Your task to perform on an android device: Go to internet settings Image 0: 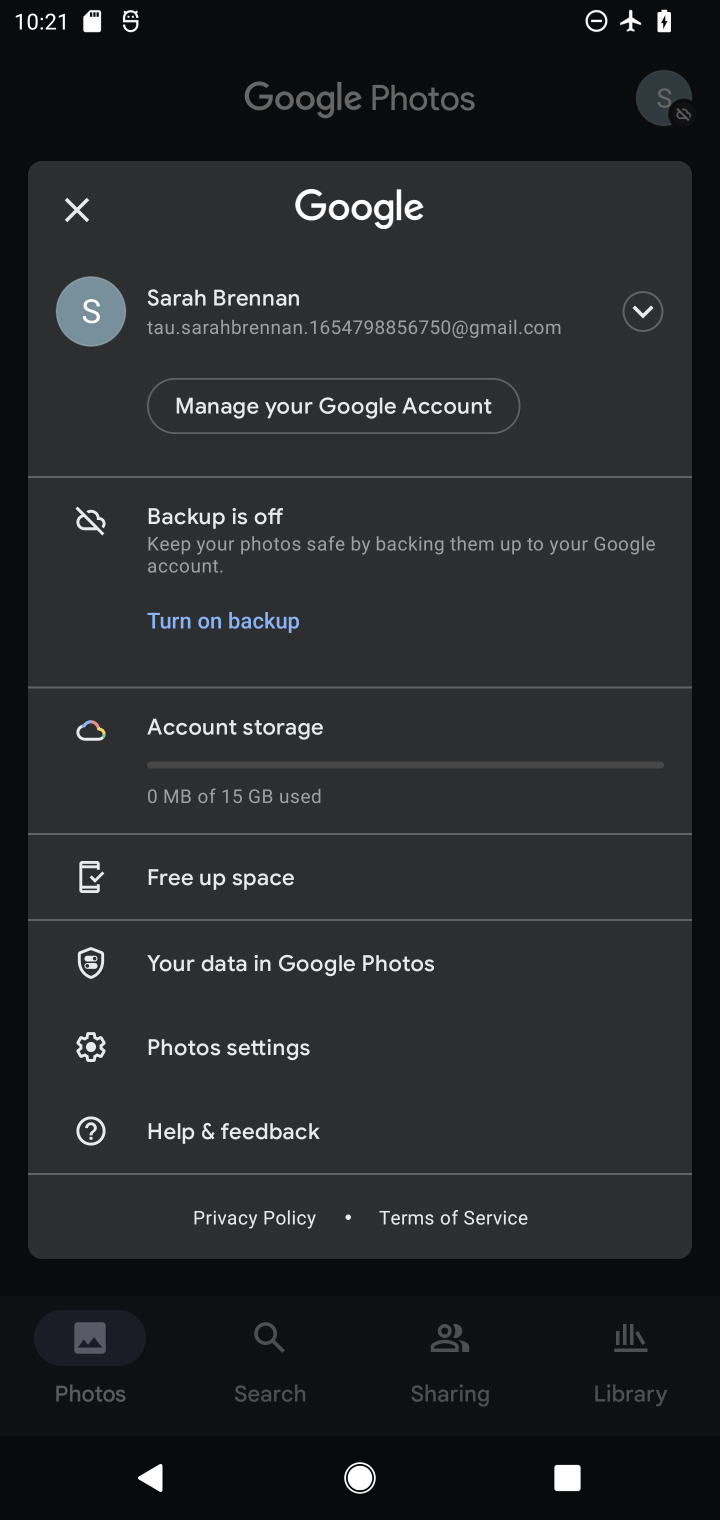
Step 0: press home button
Your task to perform on an android device: Go to internet settings Image 1: 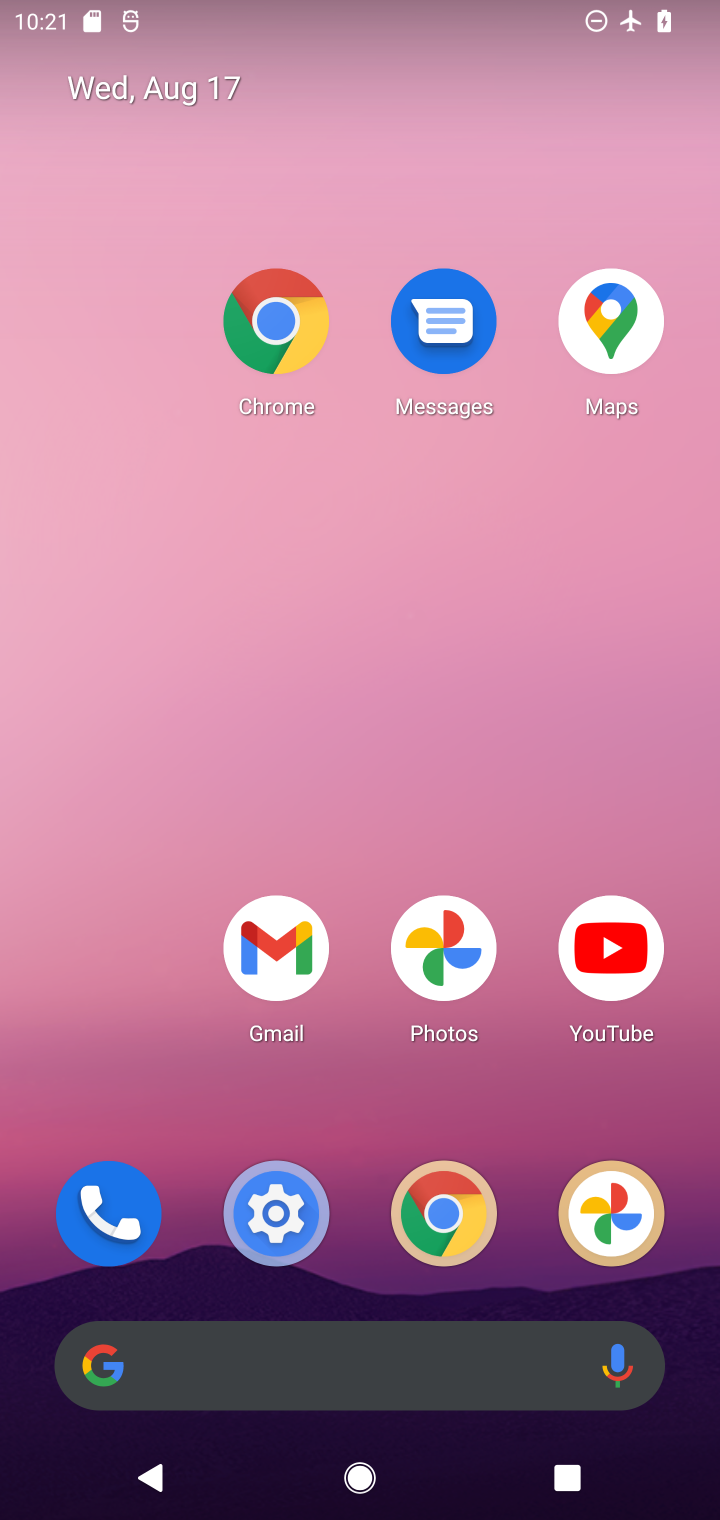
Step 1: click (293, 1224)
Your task to perform on an android device: Go to internet settings Image 2: 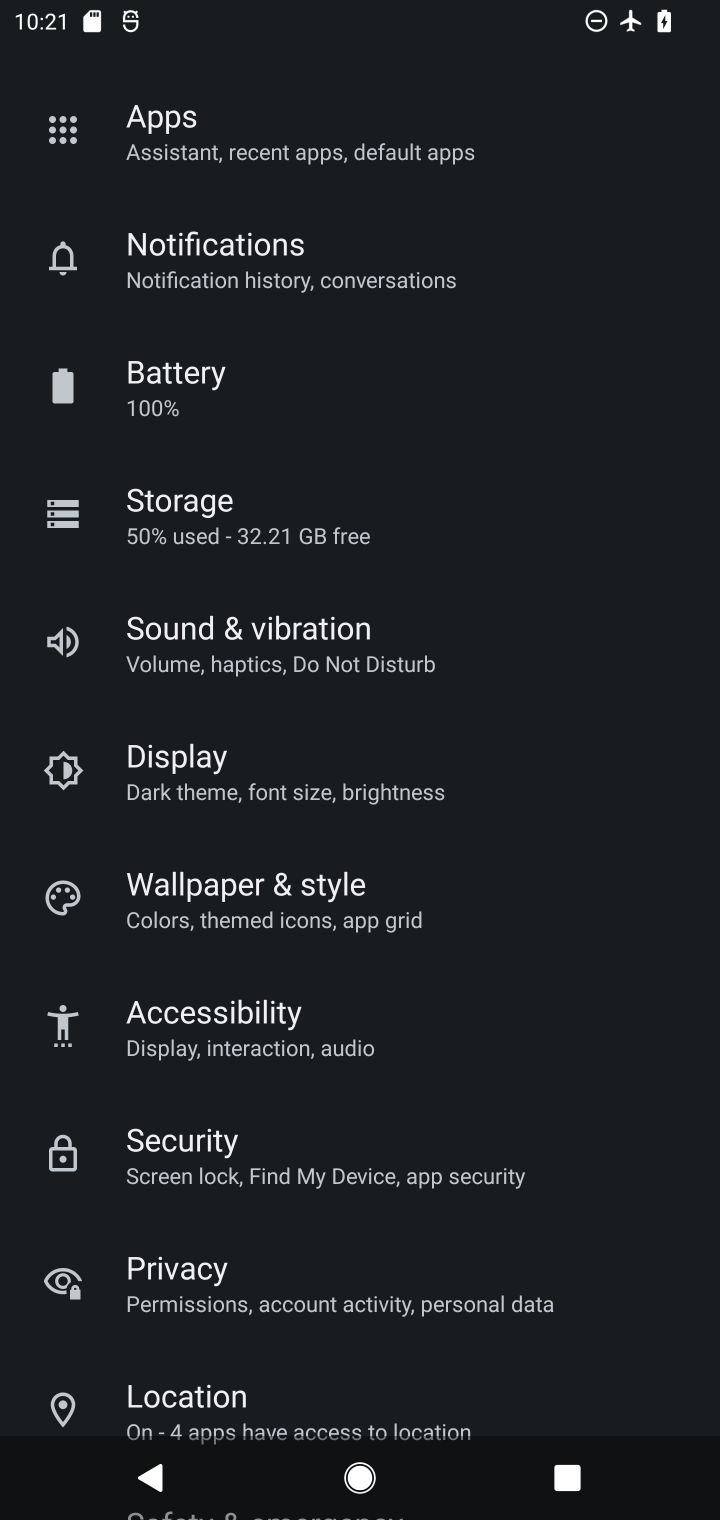
Step 2: drag from (300, 686) to (94, 1455)
Your task to perform on an android device: Go to internet settings Image 3: 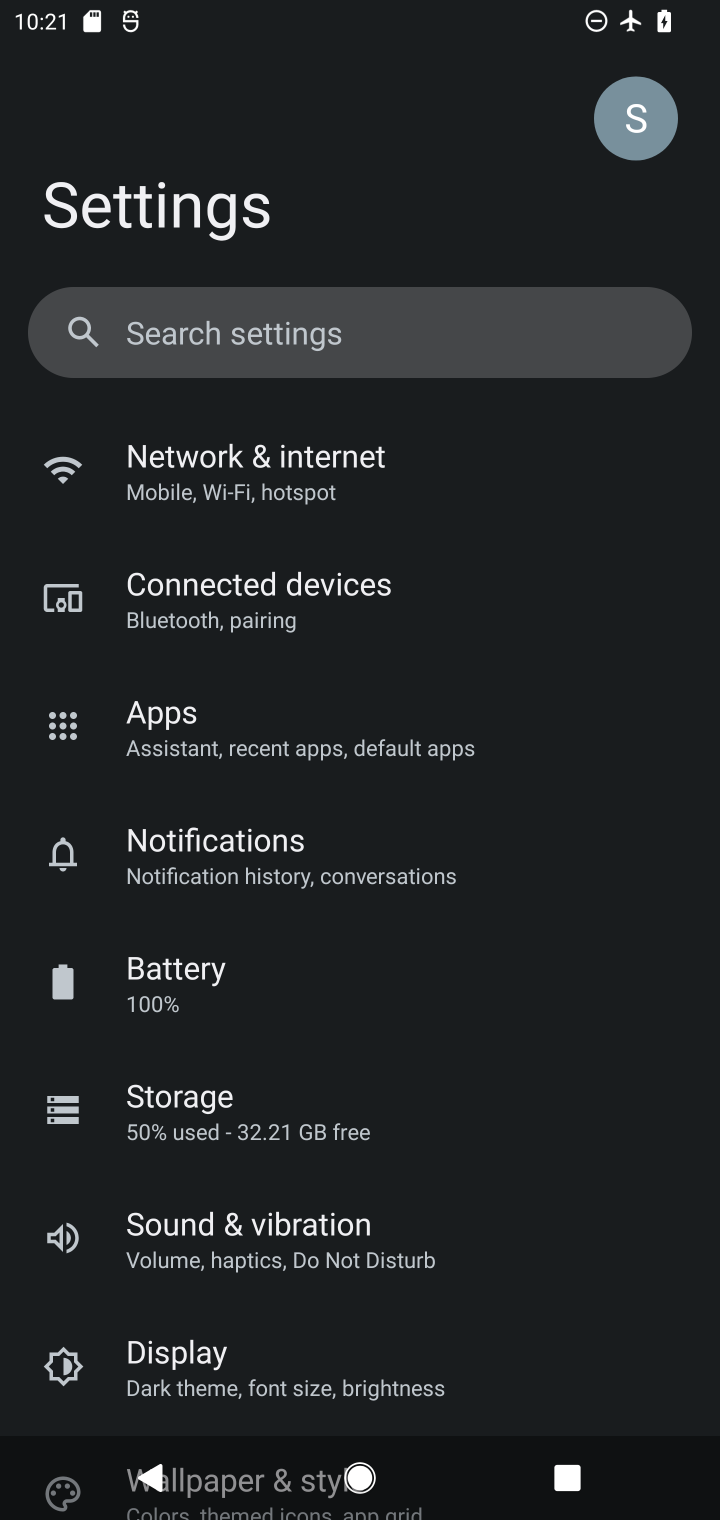
Step 3: click (429, 500)
Your task to perform on an android device: Go to internet settings Image 4: 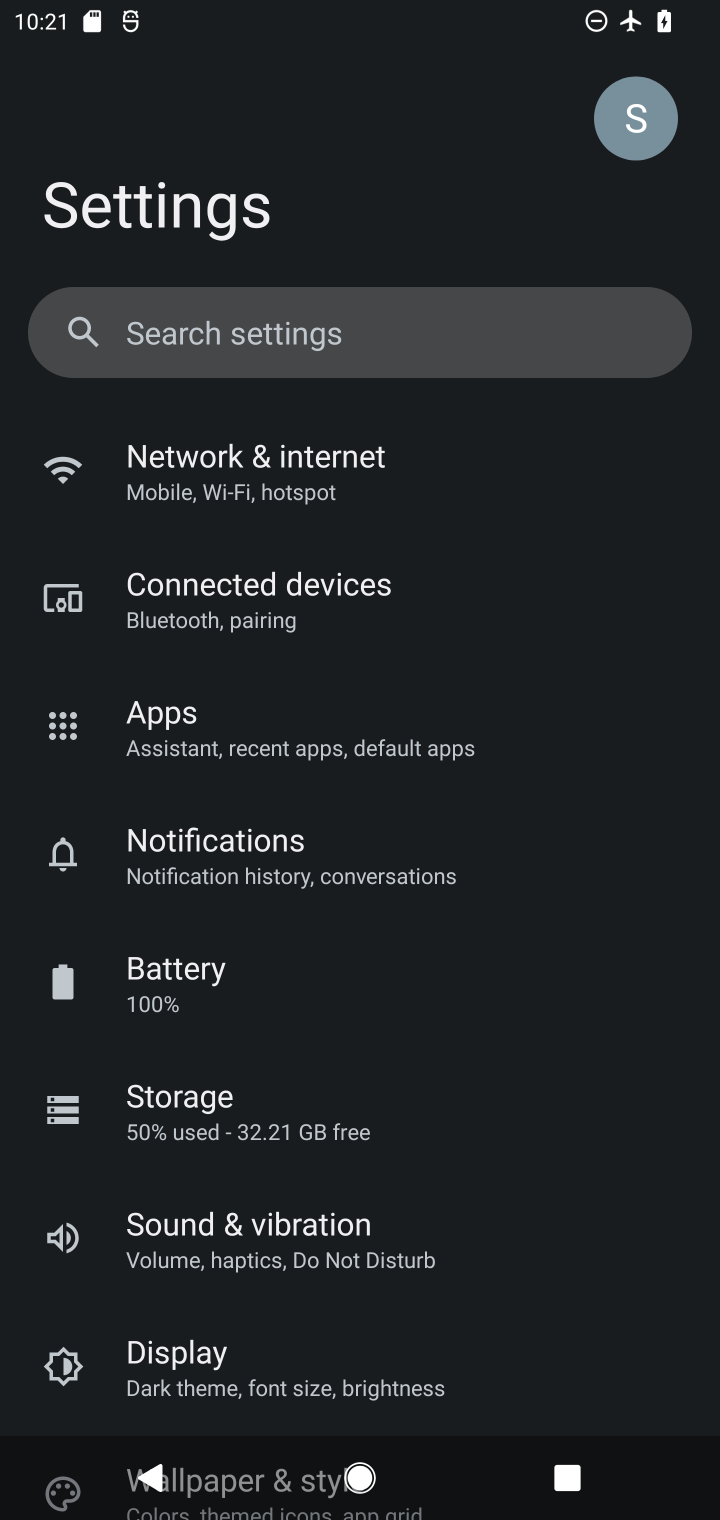
Step 4: task complete